Your task to perform on an android device: toggle pop-ups in chrome Image 0: 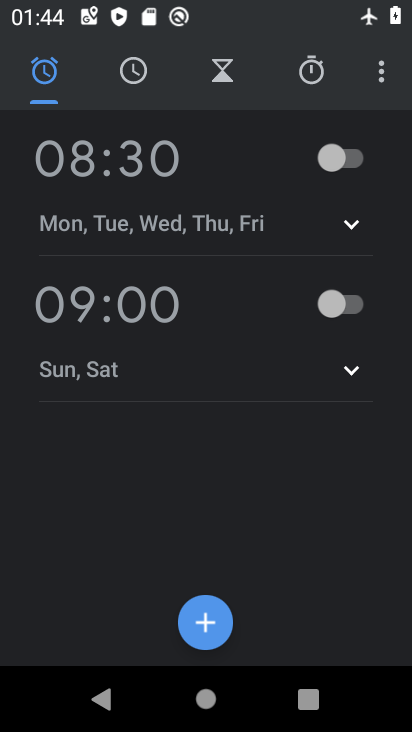
Step 0: press home button
Your task to perform on an android device: toggle pop-ups in chrome Image 1: 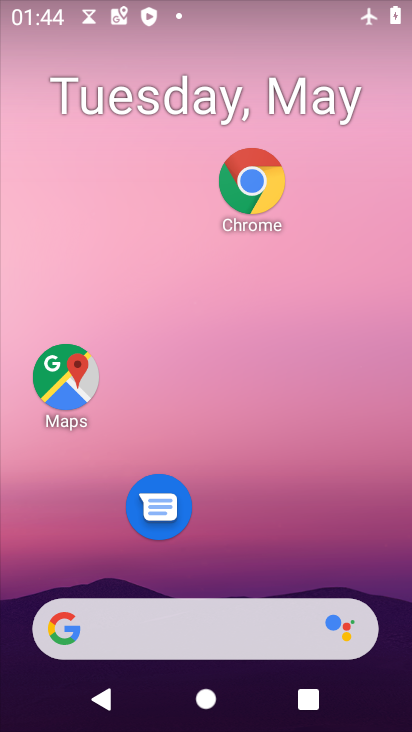
Step 1: drag from (261, 553) to (308, 290)
Your task to perform on an android device: toggle pop-ups in chrome Image 2: 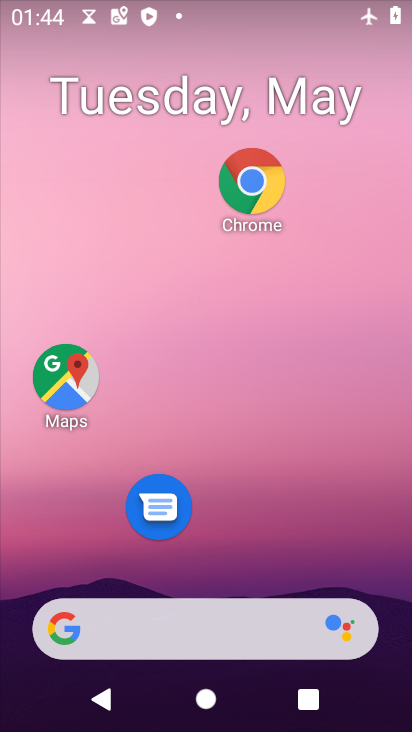
Step 2: drag from (300, 523) to (316, 267)
Your task to perform on an android device: toggle pop-ups in chrome Image 3: 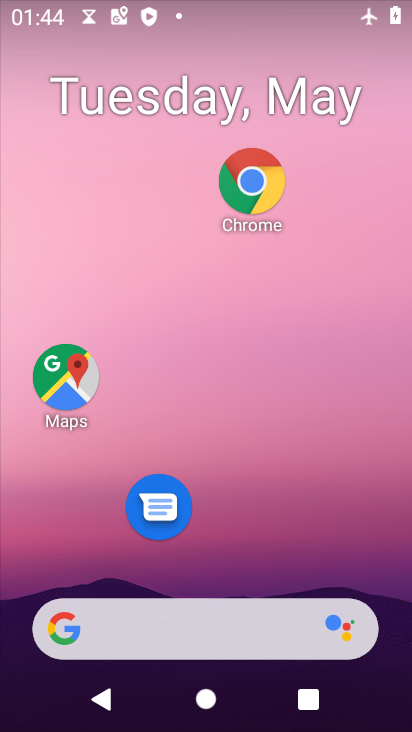
Step 3: drag from (316, 545) to (310, 251)
Your task to perform on an android device: toggle pop-ups in chrome Image 4: 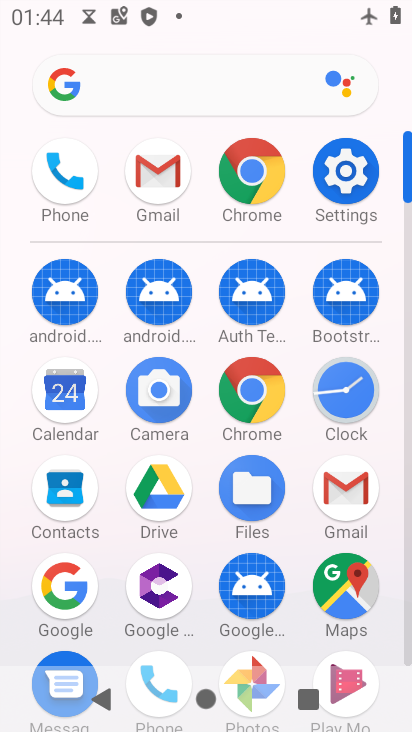
Step 4: click (250, 153)
Your task to perform on an android device: toggle pop-ups in chrome Image 5: 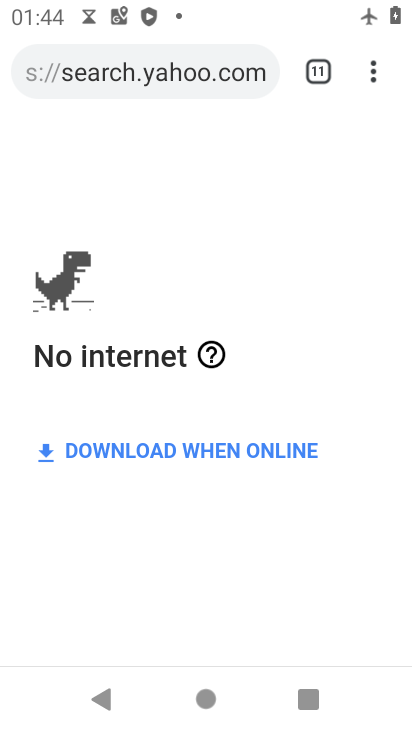
Step 5: click (368, 68)
Your task to perform on an android device: toggle pop-ups in chrome Image 6: 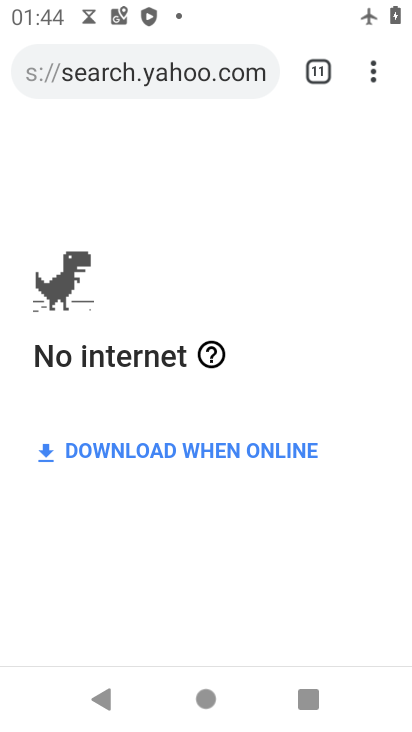
Step 6: click (381, 66)
Your task to perform on an android device: toggle pop-ups in chrome Image 7: 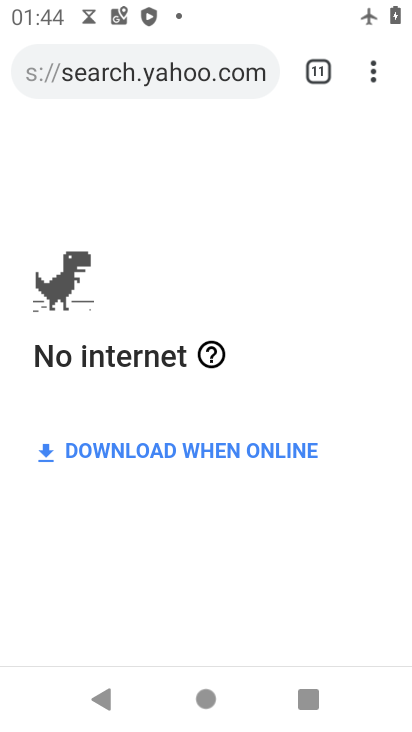
Step 7: click (377, 73)
Your task to perform on an android device: toggle pop-ups in chrome Image 8: 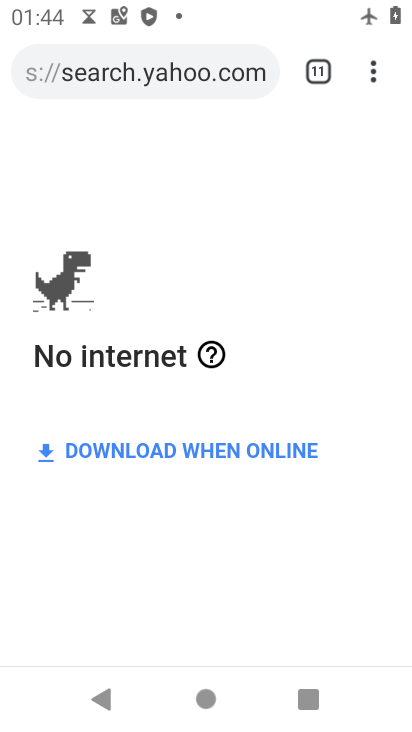
Step 8: click (368, 71)
Your task to perform on an android device: toggle pop-ups in chrome Image 9: 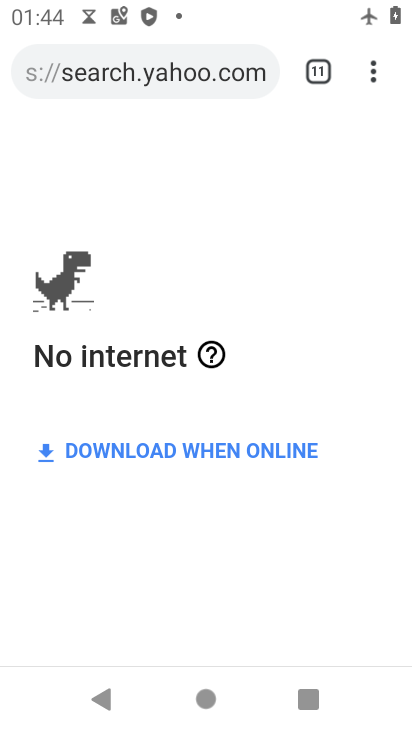
Step 9: click (368, 71)
Your task to perform on an android device: toggle pop-ups in chrome Image 10: 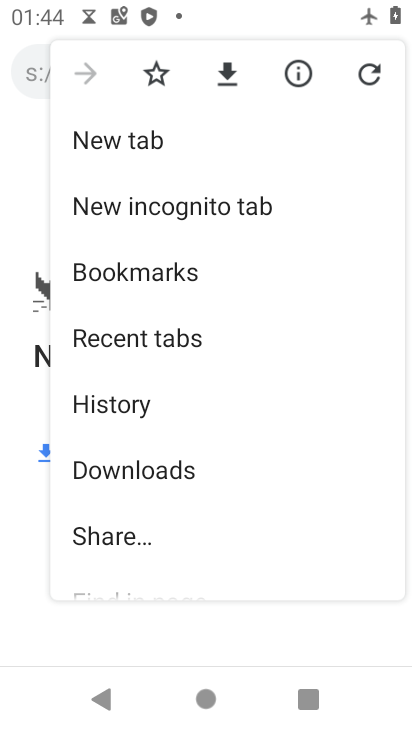
Step 10: drag from (126, 496) to (157, 214)
Your task to perform on an android device: toggle pop-ups in chrome Image 11: 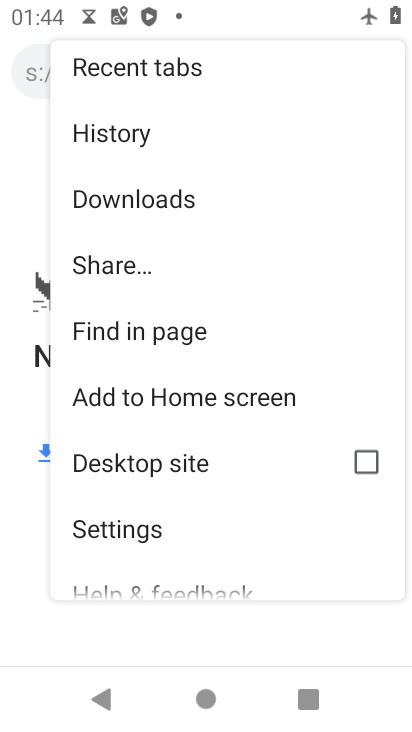
Step 11: click (131, 517)
Your task to perform on an android device: toggle pop-ups in chrome Image 12: 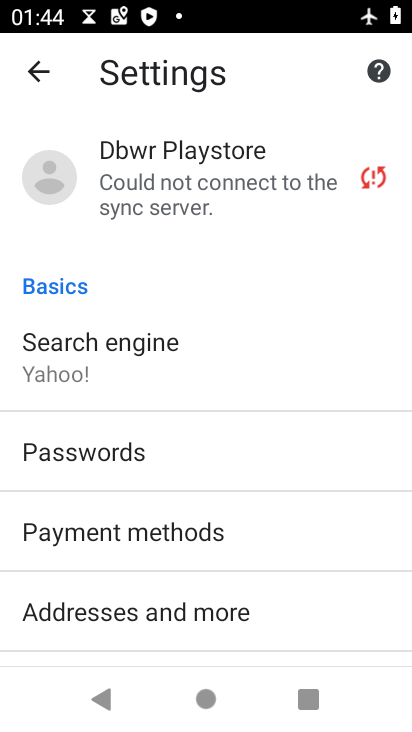
Step 12: drag from (264, 565) to (274, 285)
Your task to perform on an android device: toggle pop-ups in chrome Image 13: 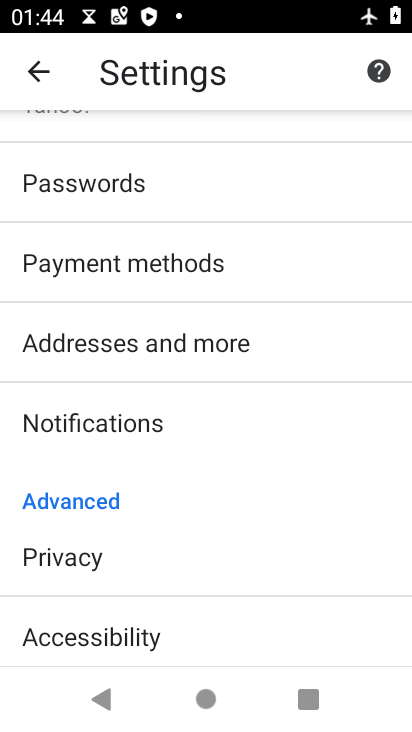
Step 13: drag from (183, 589) to (241, 275)
Your task to perform on an android device: toggle pop-ups in chrome Image 14: 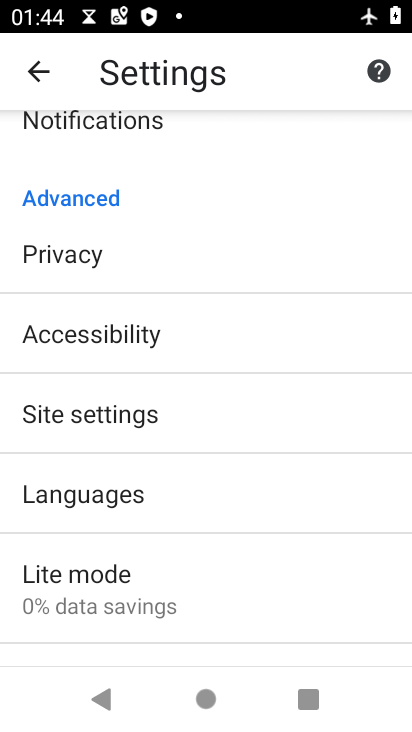
Step 14: click (163, 422)
Your task to perform on an android device: toggle pop-ups in chrome Image 15: 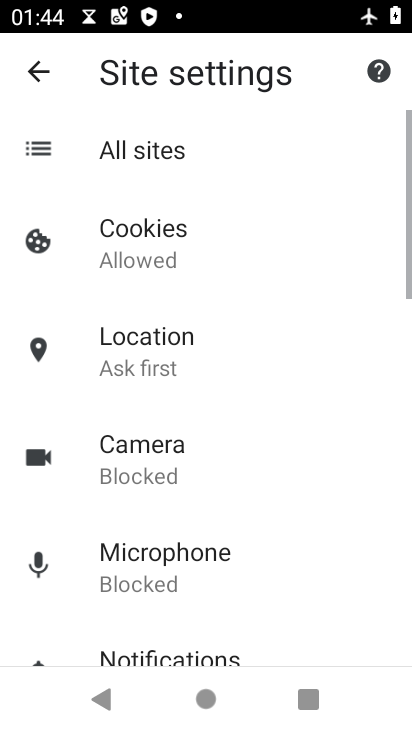
Step 15: drag from (250, 613) to (251, 345)
Your task to perform on an android device: toggle pop-ups in chrome Image 16: 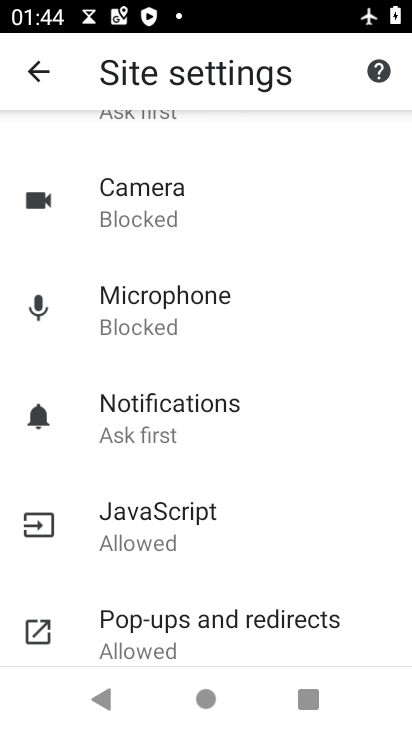
Step 16: click (213, 592)
Your task to perform on an android device: toggle pop-ups in chrome Image 17: 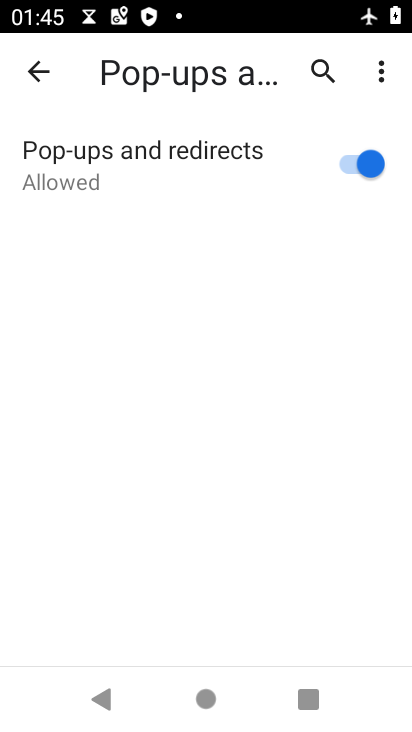
Step 17: click (339, 156)
Your task to perform on an android device: toggle pop-ups in chrome Image 18: 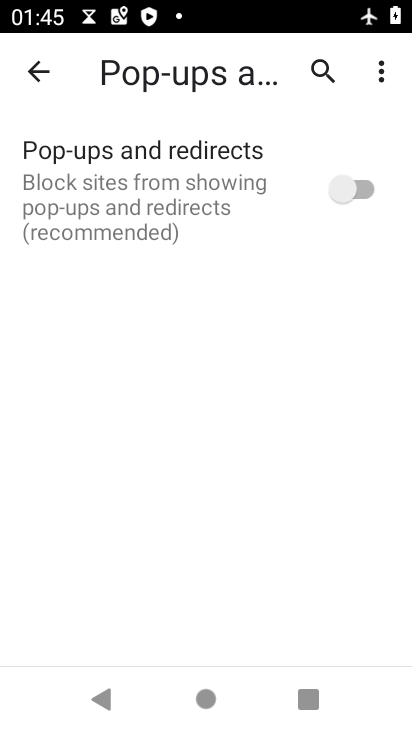
Step 18: task complete